Your task to perform on an android device: find which apps use the phone's location Image 0: 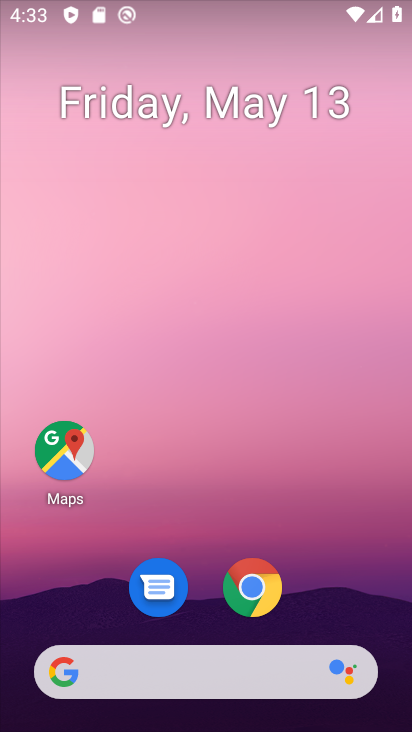
Step 0: drag from (345, 609) to (337, 96)
Your task to perform on an android device: find which apps use the phone's location Image 1: 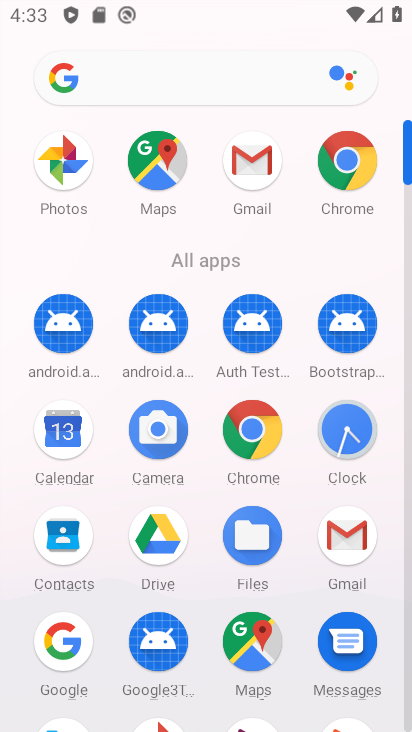
Step 1: drag from (298, 296) to (308, 23)
Your task to perform on an android device: find which apps use the phone's location Image 2: 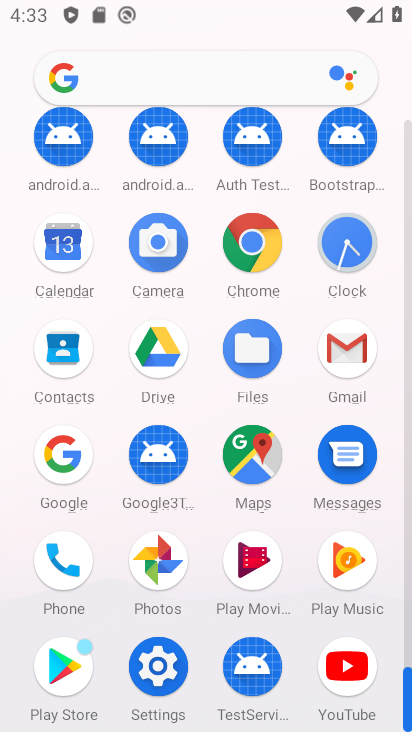
Step 2: click (51, 558)
Your task to perform on an android device: find which apps use the phone's location Image 3: 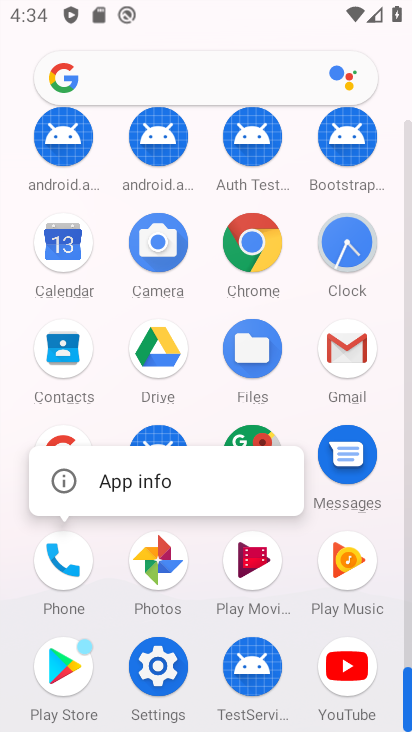
Step 3: click (101, 473)
Your task to perform on an android device: find which apps use the phone's location Image 4: 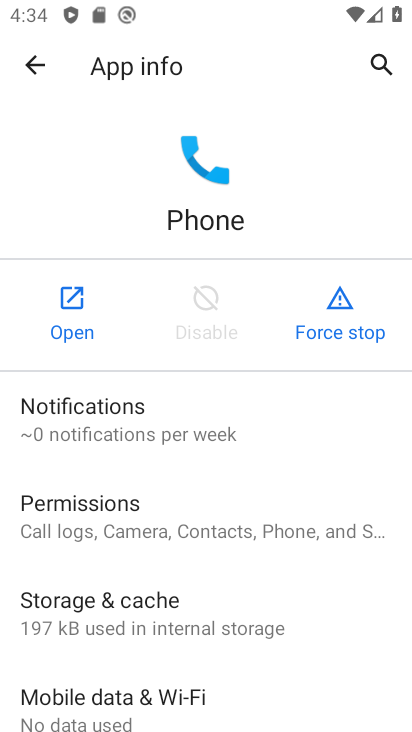
Step 4: drag from (243, 671) to (231, 363)
Your task to perform on an android device: find which apps use the phone's location Image 5: 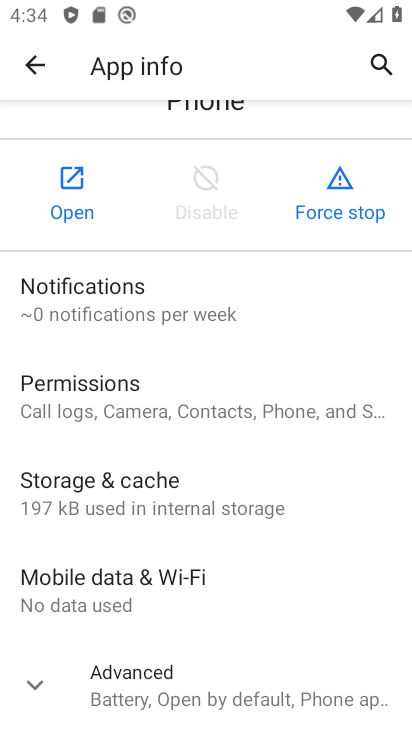
Step 5: click (157, 686)
Your task to perform on an android device: find which apps use the phone's location Image 6: 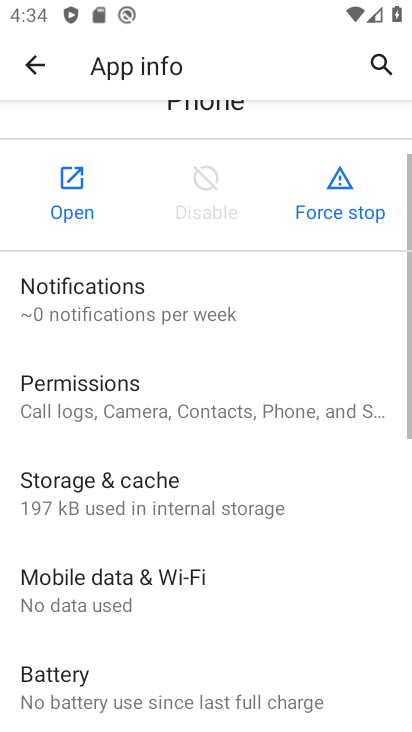
Step 6: click (265, 671)
Your task to perform on an android device: find which apps use the phone's location Image 7: 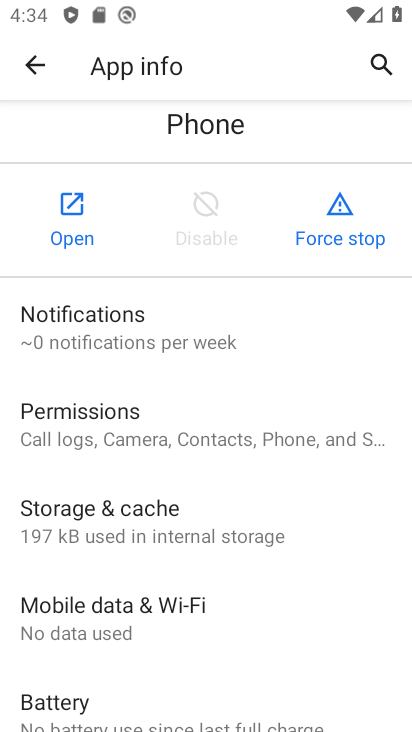
Step 7: click (86, 428)
Your task to perform on an android device: find which apps use the phone's location Image 8: 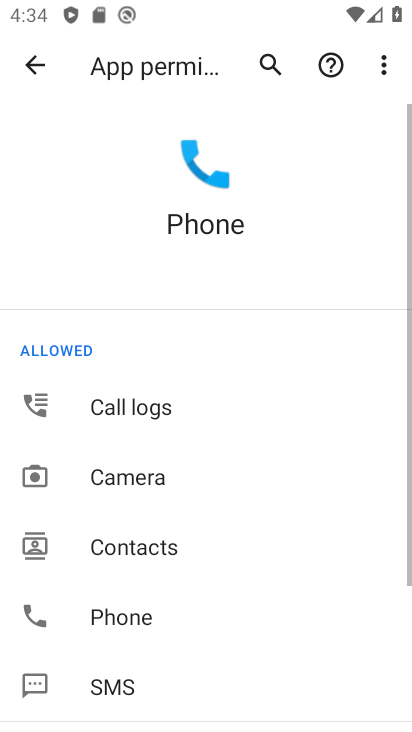
Step 8: drag from (278, 637) to (287, 287)
Your task to perform on an android device: find which apps use the phone's location Image 9: 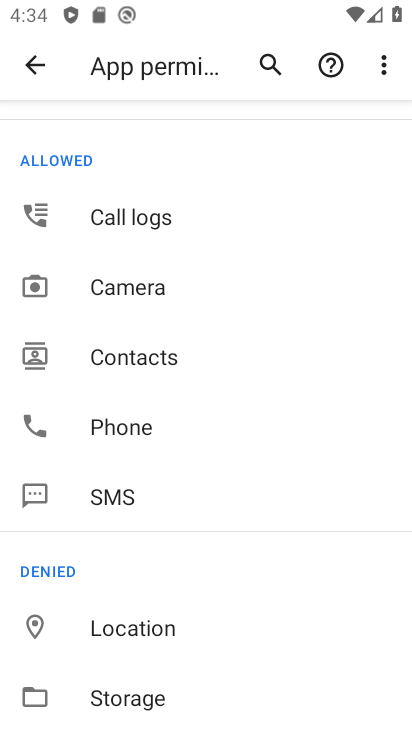
Step 9: click (115, 627)
Your task to perform on an android device: find which apps use the phone's location Image 10: 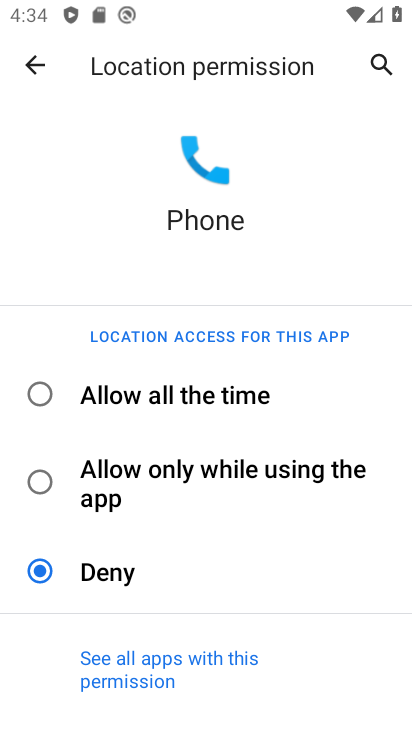
Step 10: task complete